Your task to perform on an android device: Go to Amazon Image 0: 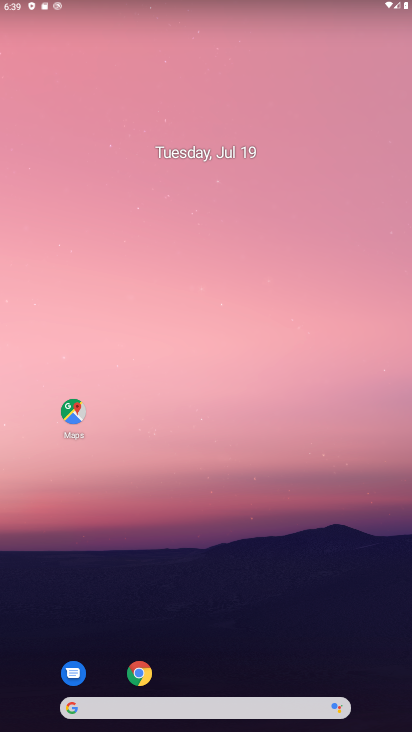
Step 0: drag from (378, 703) to (267, 31)
Your task to perform on an android device: Go to Amazon Image 1: 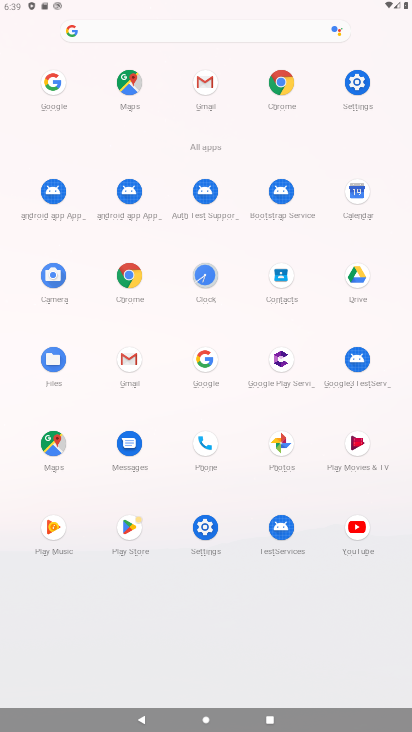
Step 1: click (194, 361)
Your task to perform on an android device: Go to Amazon Image 2: 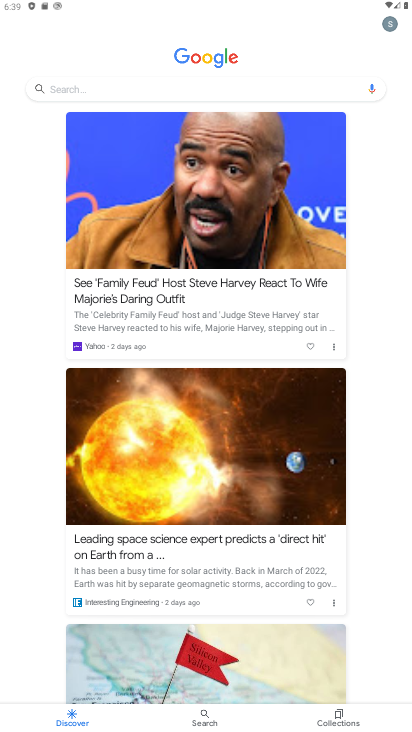
Step 2: click (109, 92)
Your task to perform on an android device: Go to Amazon Image 3: 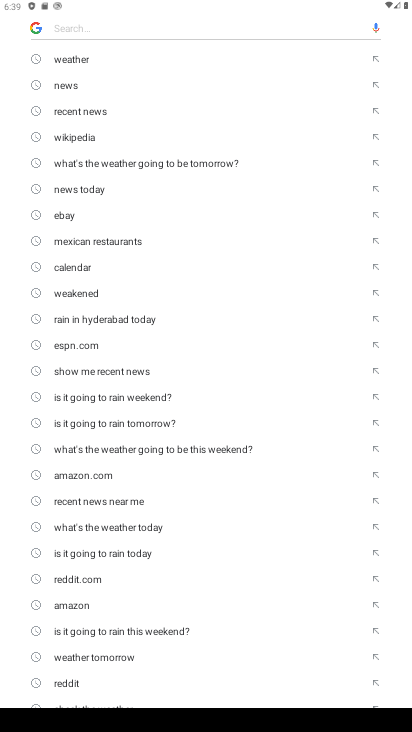
Step 3: click (82, 607)
Your task to perform on an android device: Go to Amazon Image 4: 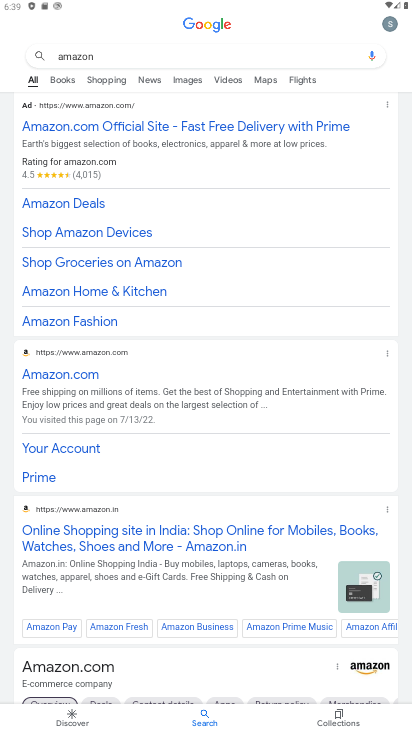
Step 4: task complete